Your task to perform on an android device: Open calendar and show me the fourth week of next month Image 0: 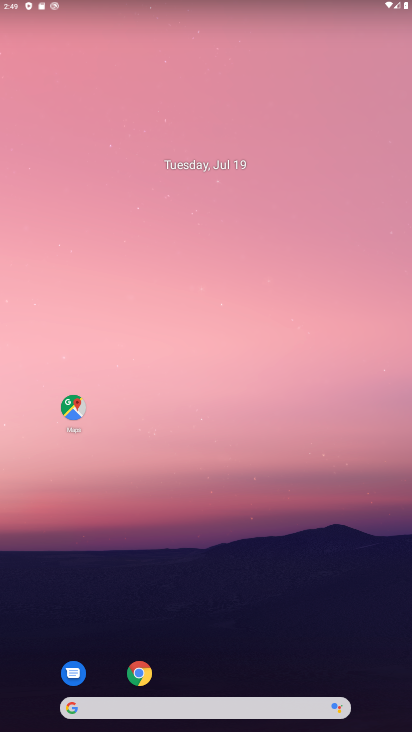
Step 0: drag from (233, 509) to (258, 176)
Your task to perform on an android device: Open calendar and show me the fourth week of next month Image 1: 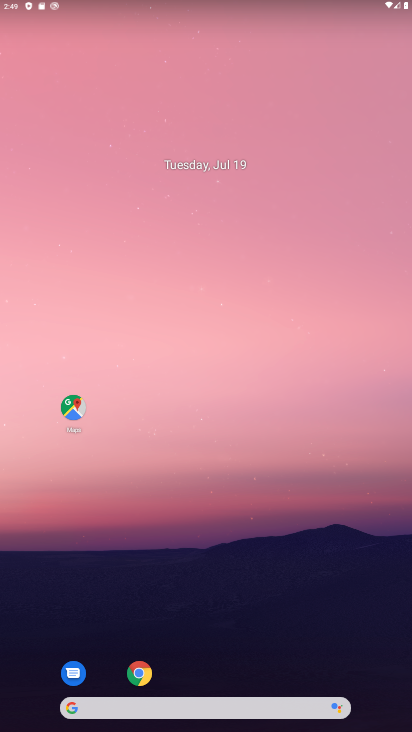
Step 1: drag from (224, 660) to (228, 215)
Your task to perform on an android device: Open calendar and show me the fourth week of next month Image 2: 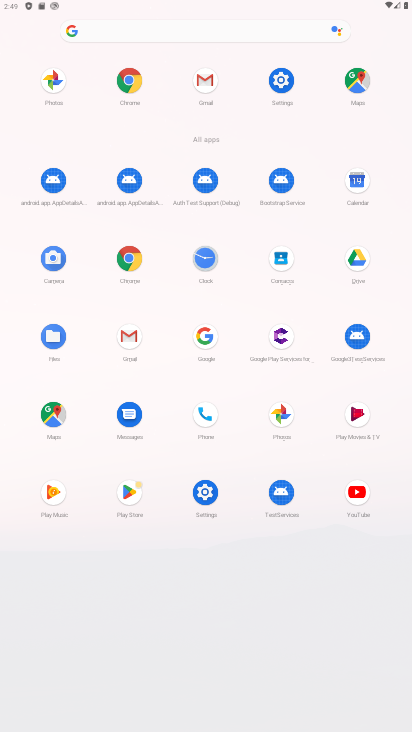
Step 2: click (353, 188)
Your task to perform on an android device: Open calendar and show me the fourth week of next month Image 3: 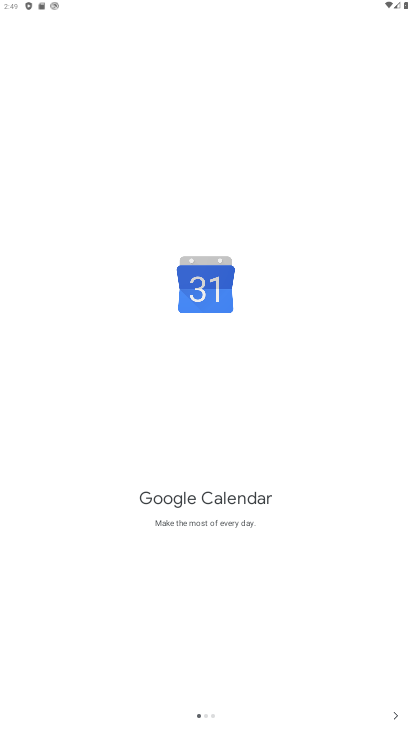
Step 3: click (385, 708)
Your task to perform on an android device: Open calendar and show me the fourth week of next month Image 4: 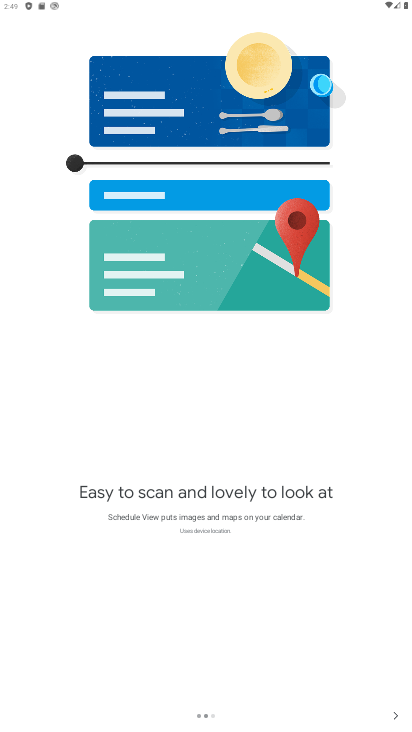
Step 4: click (383, 706)
Your task to perform on an android device: Open calendar and show me the fourth week of next month Image 5: 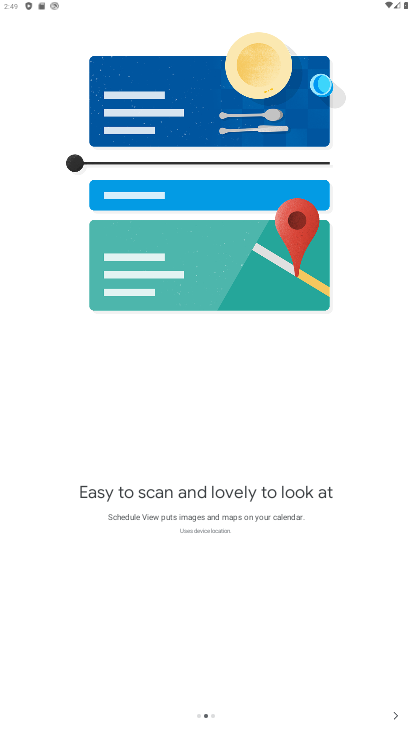
Step 5: click (383, 706)
Your task to perform on an android device: Open calendar and show me the fourth week of next month Image 6: 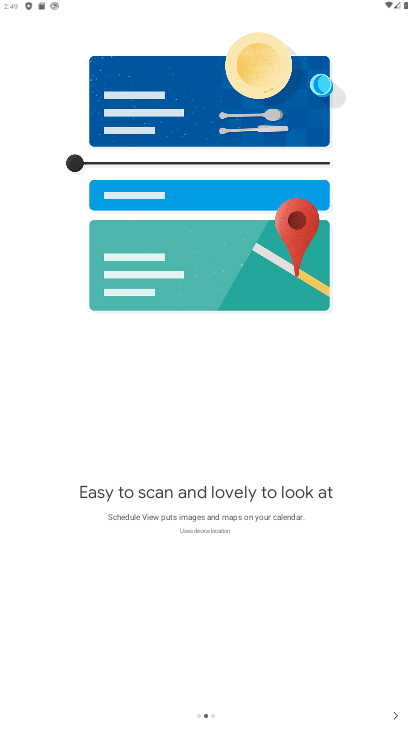
Step 6: click (383, 706)
Your task to perform on an android device: Open calendar and show me the fourth week of next month Image 7: 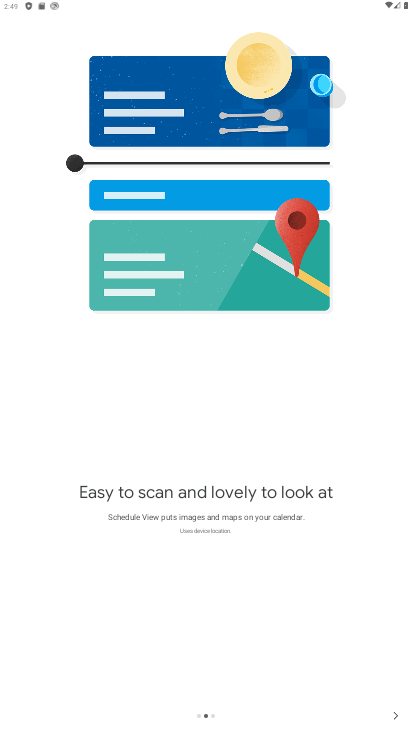
Step 7: click (383, 706)
Your task to perform on an android device: Open calendar and show me the fourth week of next month Image 8: 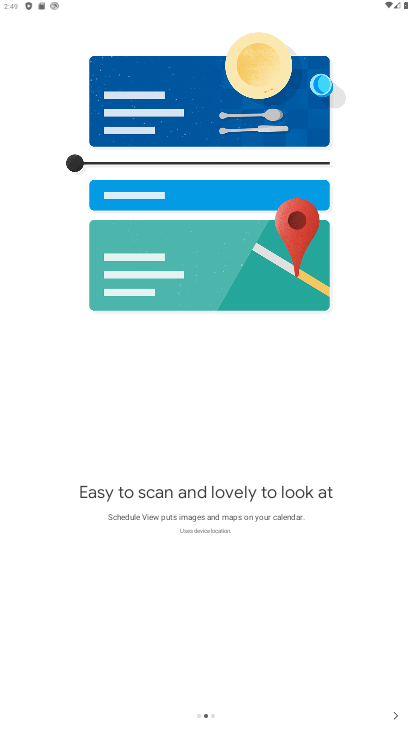
Step 8: click (388, 715)
Your task to perform on an android device: Open calendar and show me the fourth week of next month Image 9: 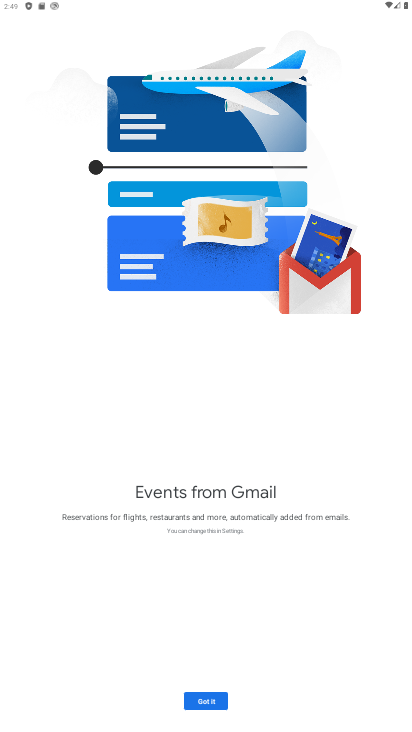
Step 9: click (212, 702)
Your task to perform on an android device: Open calendar and show me the fourth week of next month Image 10: 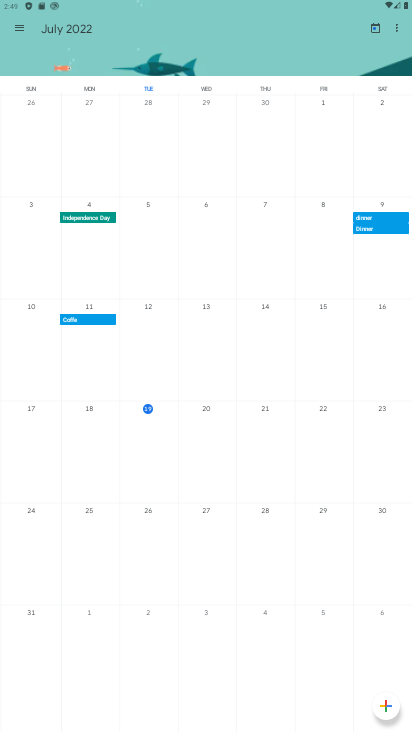
Step 10: click (60, 32)
Your task to perform on an android device: Open calendar and show me the fourth week of next month Image 11: 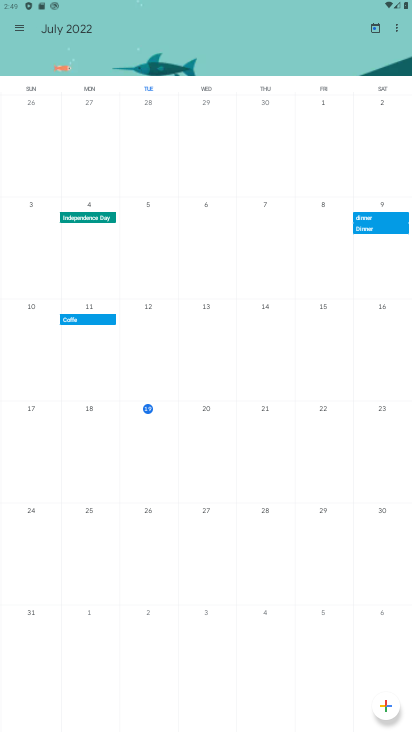
Step 11: click (82, 28)
Your task to perform on an android device: Open calendar and show me the fourth week of next month Image 12: 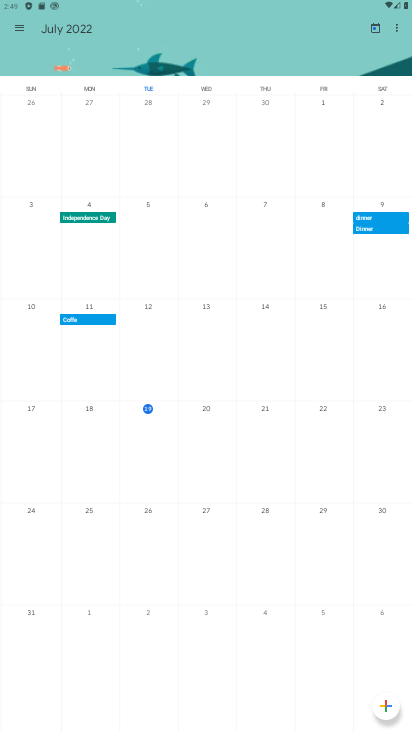
Step 12: drag from (328, 286) to (0, 341)
Your task to perform on an android device: Open calendar and show me the fourth week of next month Image 13: 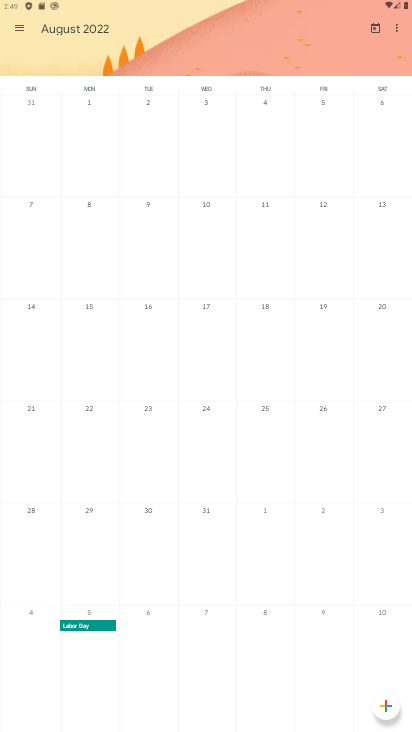
Step 13: click (9, 27)
Your task to perform on an android device: Open calendar and show me the fourth week of next month Image 14: 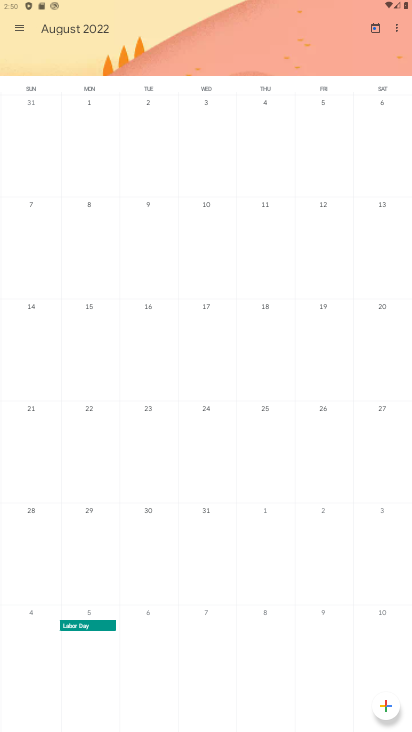
Step 14: click (17, 26)
Your task to perform on an android device: Open calendar and show me the fourth week of next month Image 15: 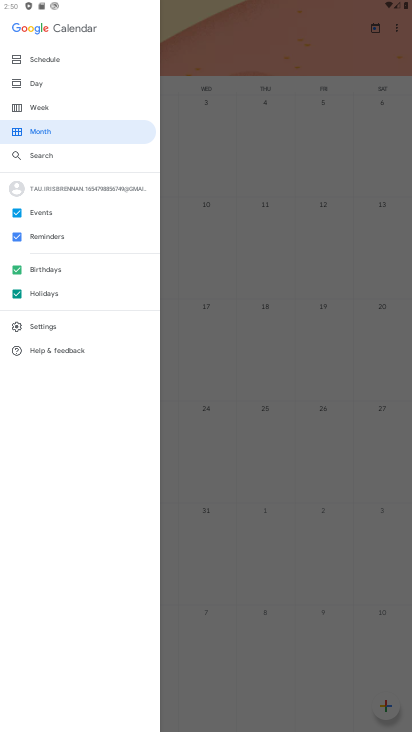
Step 15: click (58, 109)
Your task to perform on an android device: Open calendar and show me the fourth week of next month Image 16: 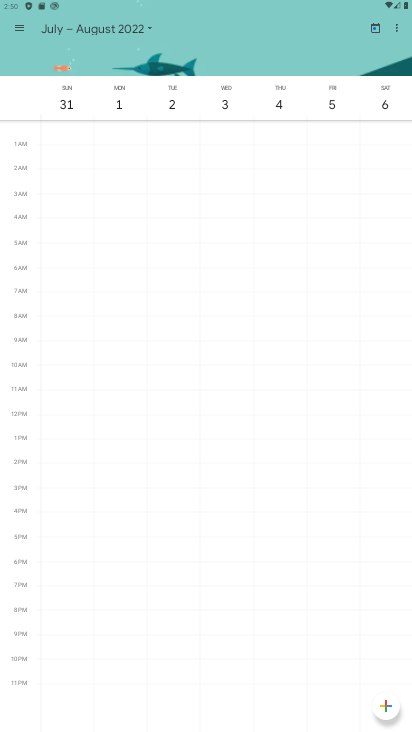
Step 16: task complete